Your task to perform on an android device: Do I have any events today? Image 0: 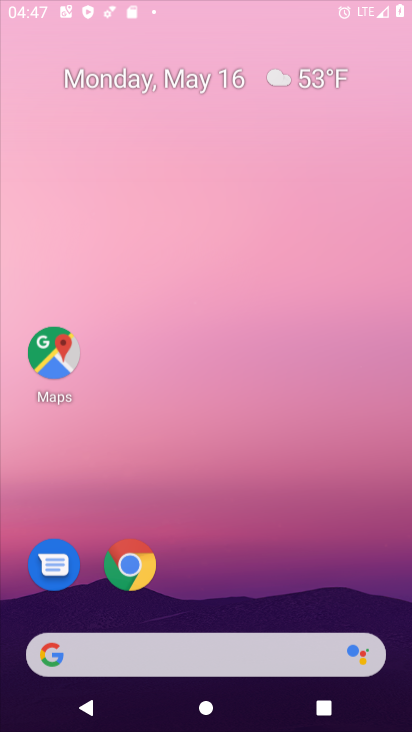
Step 0: drag from (272, 664) to (231, 2)
Your task to perform on an android device: Do I have any events today? Image 1: 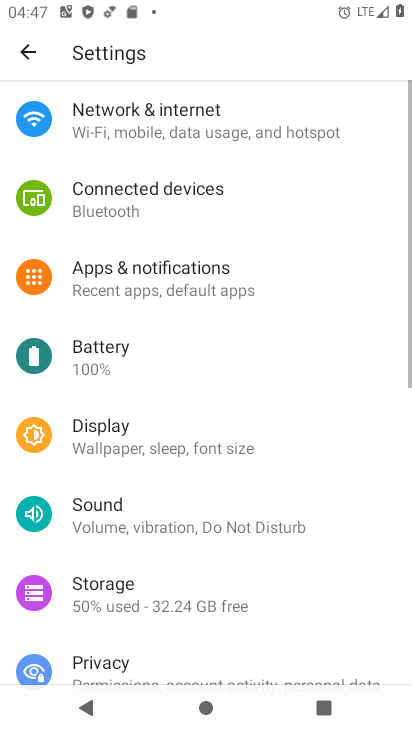
Step 1: press home button
Your task to perform on an android device: Do I have any events today? Image 2: 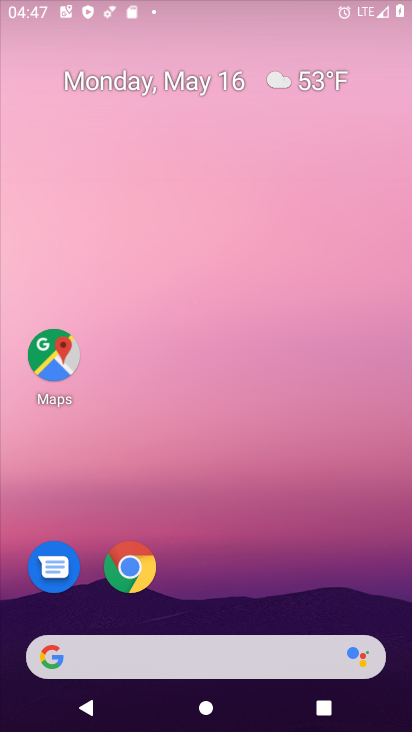
Step 2: drag from (240, 653) to (182, 1)
Your task to perform on an android device: Do I have any events today? Image 3: 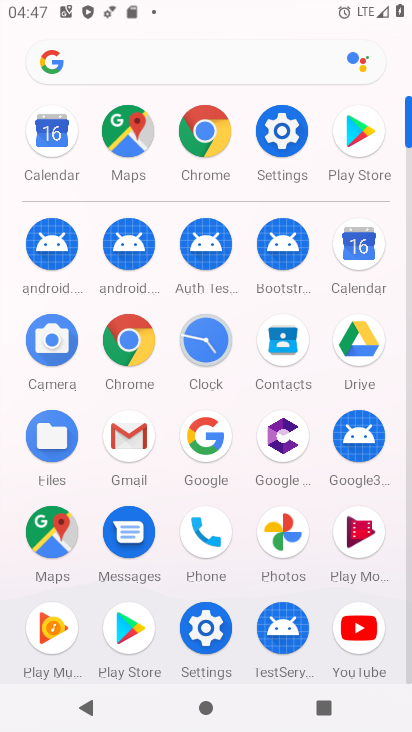
Step 3: click (366, 245)
Your task to perform on an android device: Do I have any events today? Image 4: 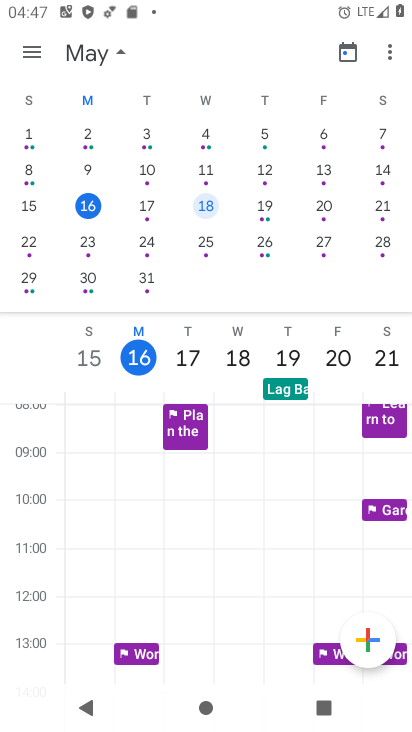
Step 4: click (85, 205)
Your task to perform on an android device: Do I have any events today? Image 5: 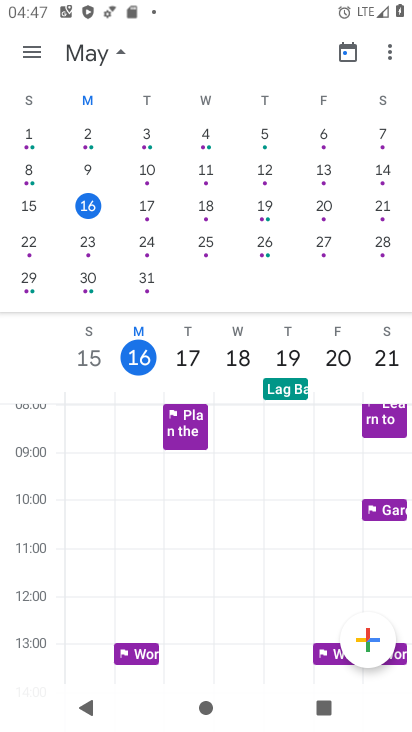
Step 5: task complete